Your task to perform on an android device: Go to Reddit.com Image 0: 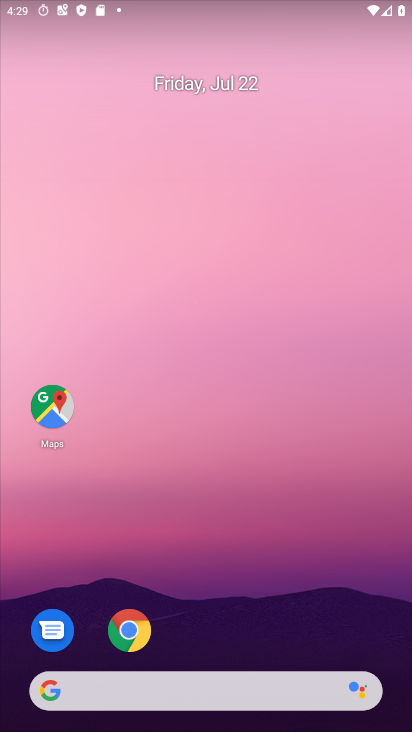
Step 0: drag from (265, 658) to (270, 120)
Your task to perform on an android device: Go to Reddit.com Image 1: 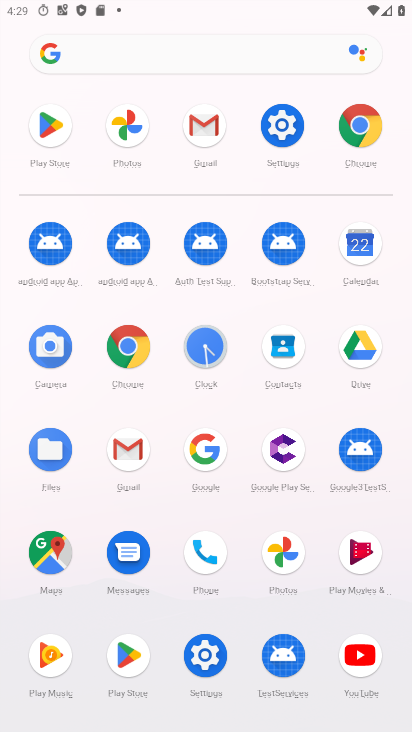
Step 1: click (141, 344)
Your task to perform on an android device: Go to Reddit.com Image 2: 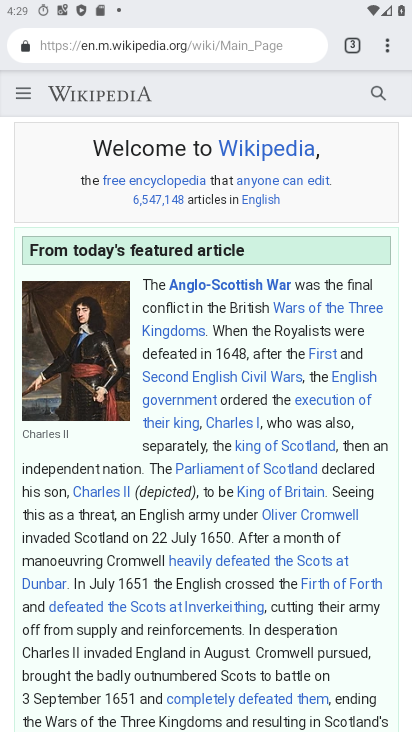
Step 2: drag from (388, 41) to (321, 74)
Your task to perform on an android device: Go to Reddit.com Image 3: 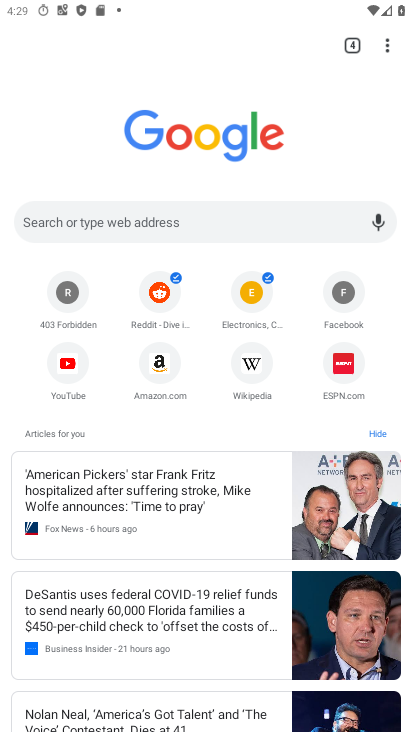
Step 3: click (177, 290)
Your task to perform on an android device: Go to Reddit.com Image 4: 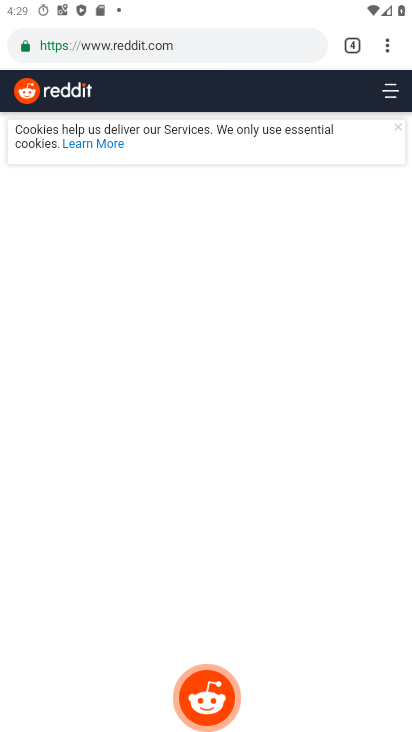
Step 4: task complete